Your task to perform on an android device: Open Youtube and go to the subscriptions tab Image 0: 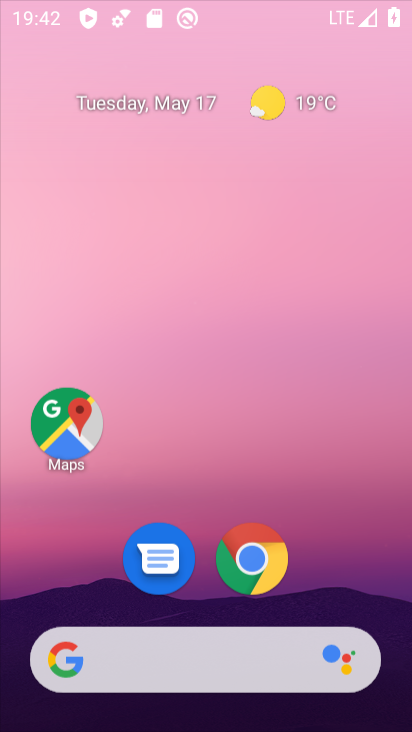
Step 0: click (188, 231)
Your task to perform on an android device: Open Youtube and go to the subscriptions tab Image 1: 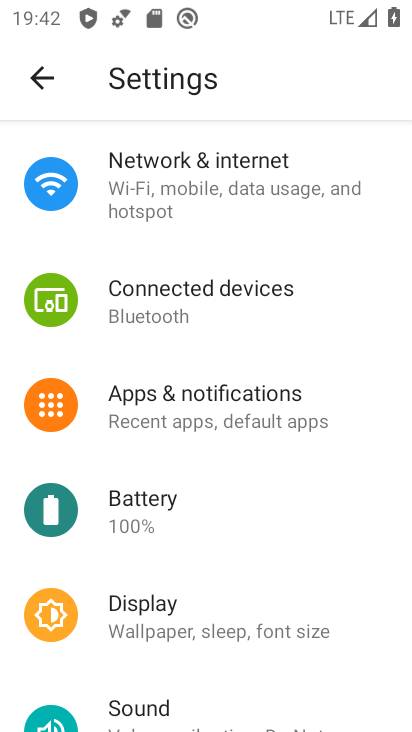
Step 1: press home button
Your task to perform on an android device: Open Youtube and go to the subscriptions tab Image 2: 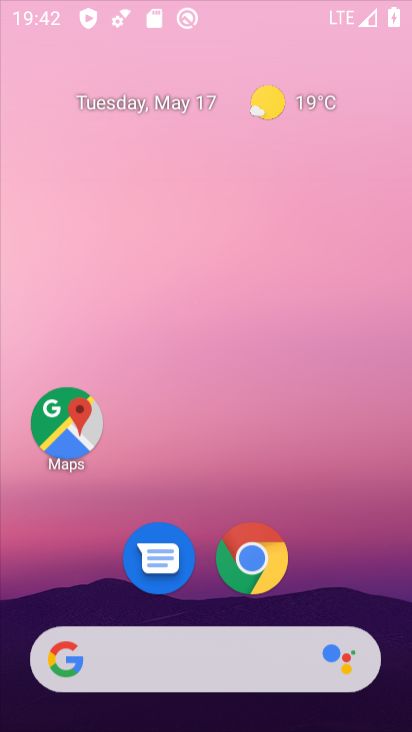
Step 2: drag from (232, 644) to (261, 34)
Your task to perform on an android device: Open Youtube and go to the subscriptions tab Image 3: 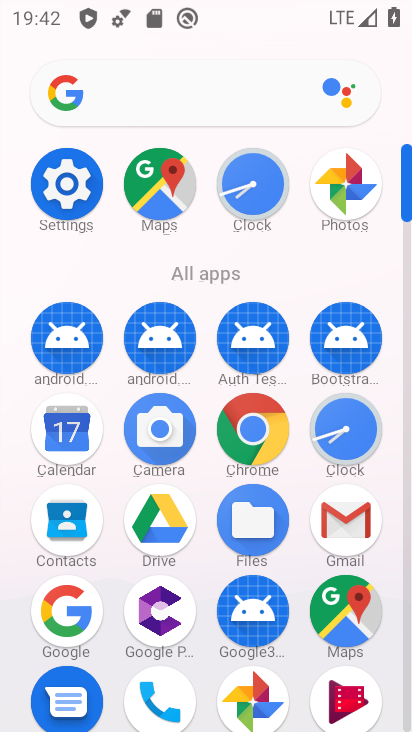
Step 3: drag from (199, 543) to (234, 107)
Your task to perform on an android device: Open Youtube and go to the subscriptions tab Image 4: 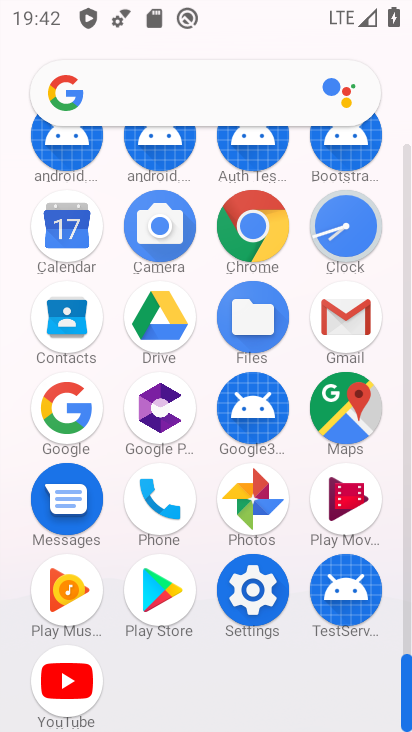
Step 4: click (80, 678)
Your task to perform on an android device: Open Youtube and go to the subscriptions tab Image 5: 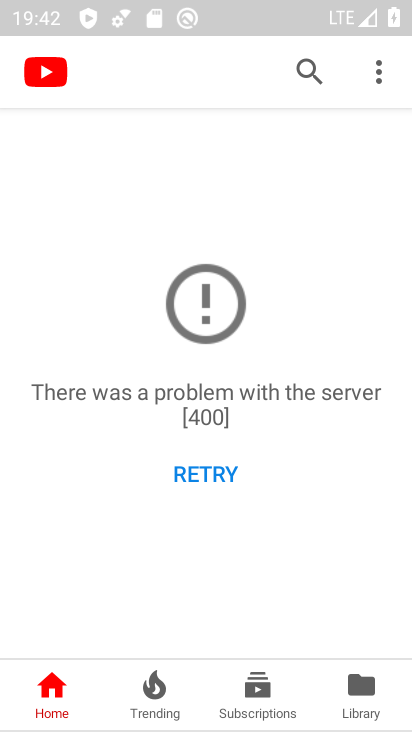
Step 5: click (257, 705)
Your task to perform on an android device: Open Youtube and go to the subscriptions tab Image 6: 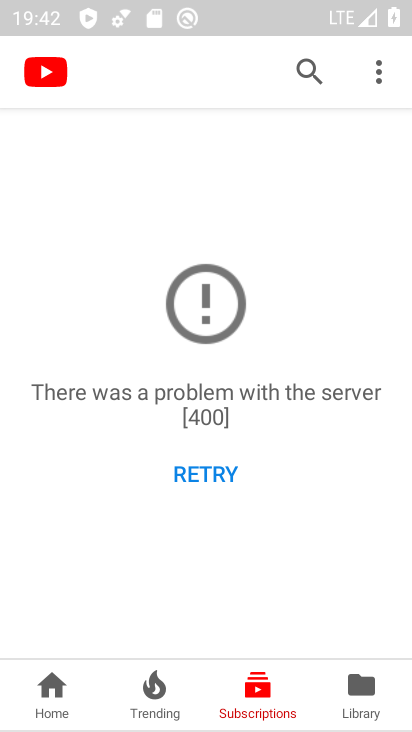
Step 6: click (179, 485)
Your task to perform on an android device: Open Youtube and go to the subscriptions tab Image 7: 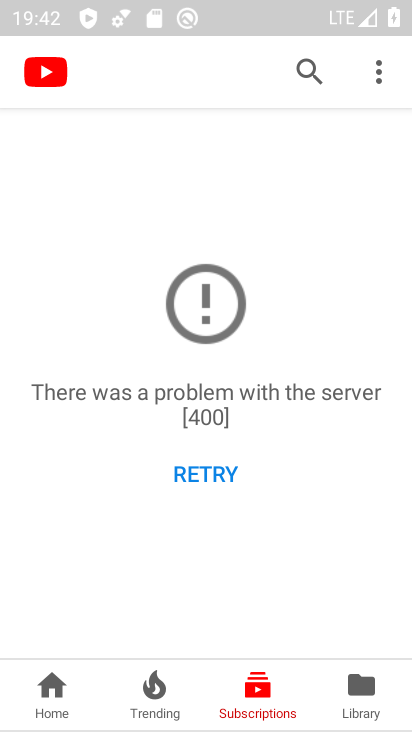
Step 7: click (179, 485)
Your task to perform on an android device: Open Youtube and go to the subscriptions tab Image 8: 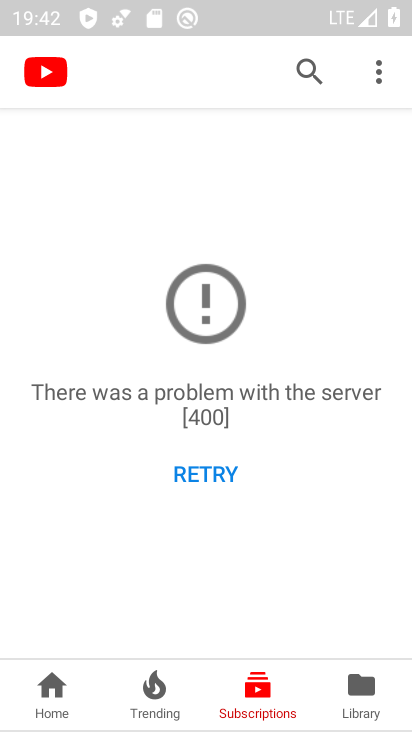
Step 8: click (179, 485)
Your task to perform on an android device: Open Youtube and go to the subscriptions tab Image 9: 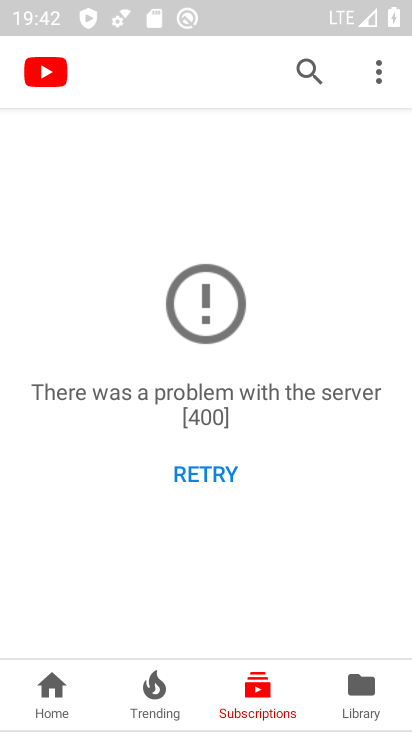
Step 9: click (174, 483)
Your task to perform on an android device: Open Youtube and go to the subscriptions tab Image 10: 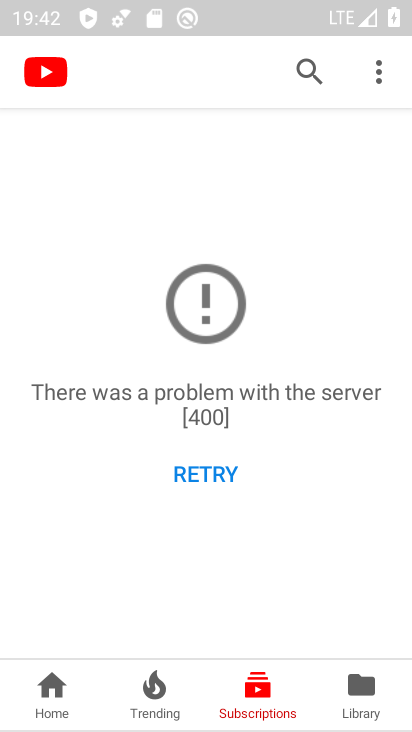
Step 10: task complete